Your task to perform on an android device: turn smart compose on in the gmail app Image 0: 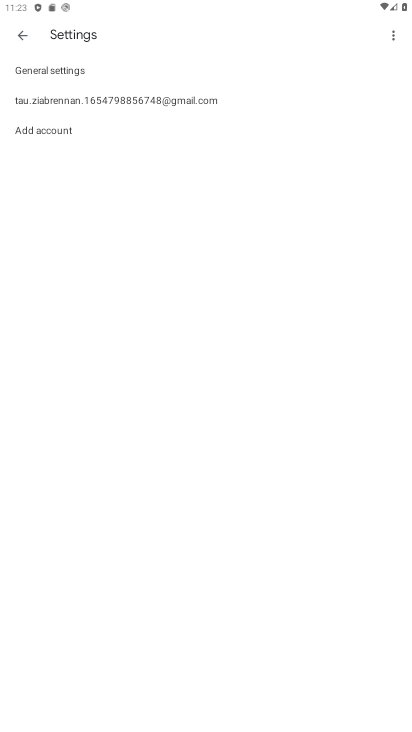
Step 0: press home button
Your task to perform on an android device: turn smart compose on in the gmail app Image 1: 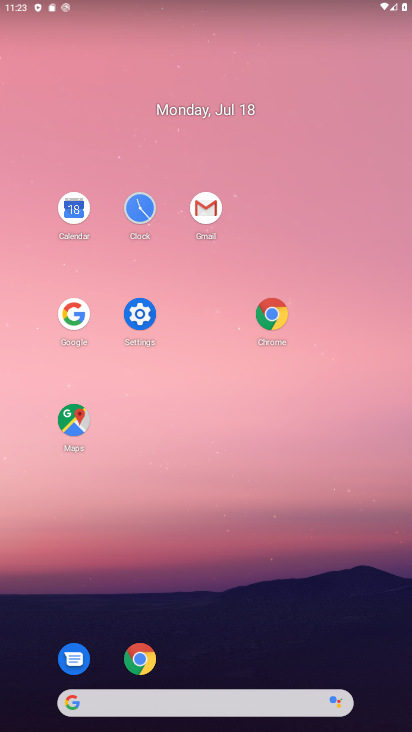
Step 1: click (219, 204)
Your task to perform on an android device: turn smart compose on in the gmail app Image 2: 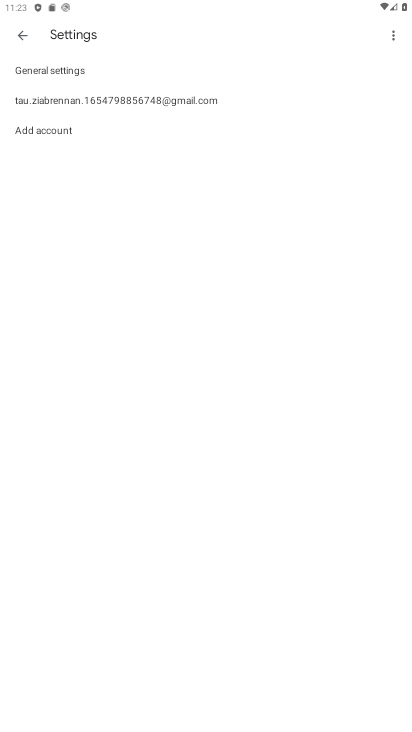
Step 2: click (48, 94)
Your task to perform on an android device: turn smart compose on in the gmail app Image 3: 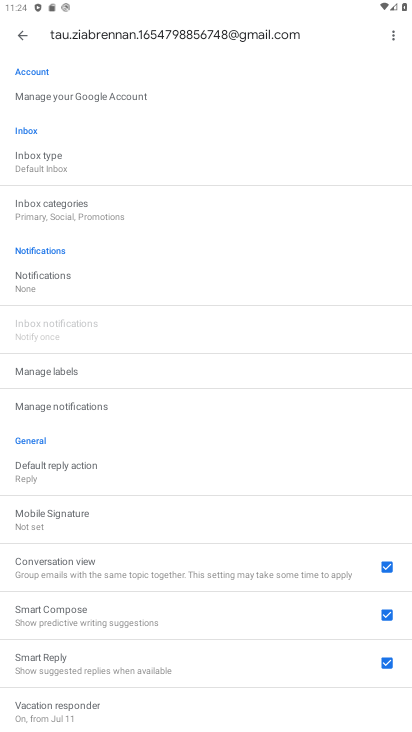
Step 3: task complete